Your task to perform on an android device: What's US dollar exchange rate against the Japanese Yen? Image 0: 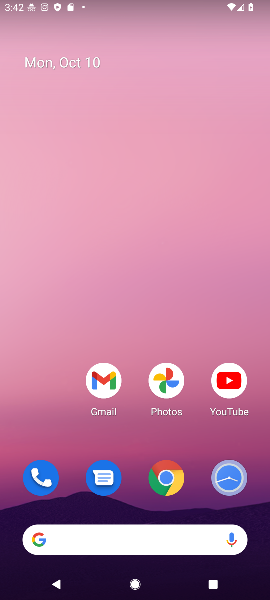
Step 0: click (170, 488)
Your task to perform on an android device: What's US dollar exchange rate against the Japanese Yen? Image 1: 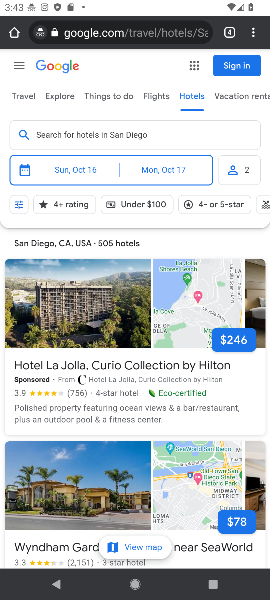
Step 1: click (112, 33)
Your task to perform on an android device: What's US dollar exchange rate against the Japanese Yen? Image 2: 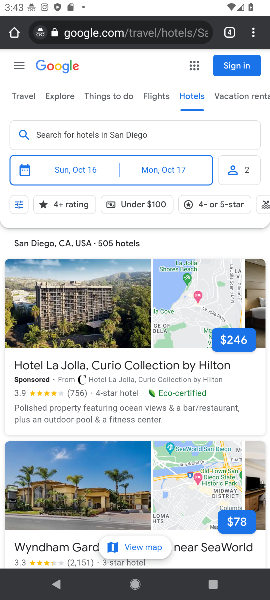
Step 2: click (112, 33)
Your task to perform on an android device: What's US dollar exchange rate against the Japanese Yen? Image 3: 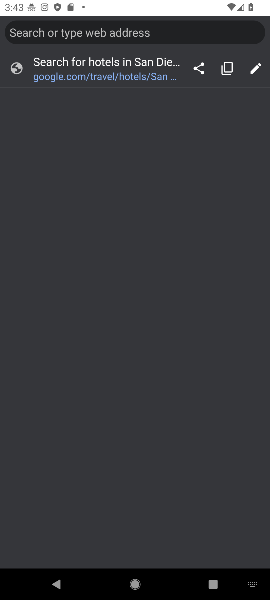
Step 3: type "What's US dollar exchange rate against the Japanese Yen?"
Your task to perform on an android device: What's US dollar exchange rate against the Japanese Yen? Image 4: 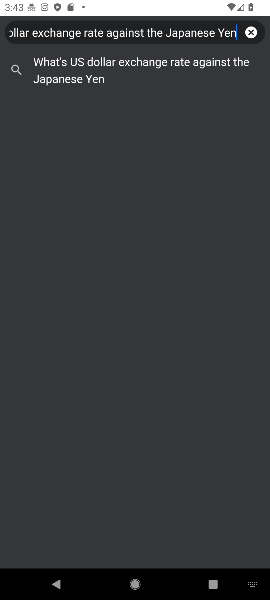
Step 4: click (113, 74)
Your task to perform on an android device: What's US dollar exchange rate against the Japanese Yen? Image 5: 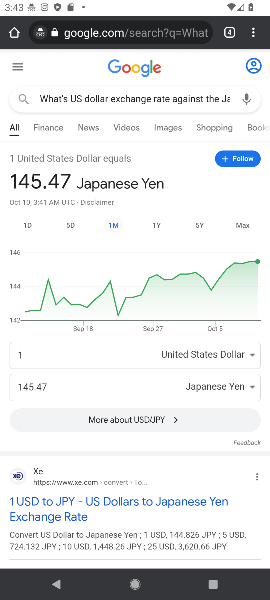
Step 5: task complete